Your task to perform on an android device: star an email in the gmail app Image 0: 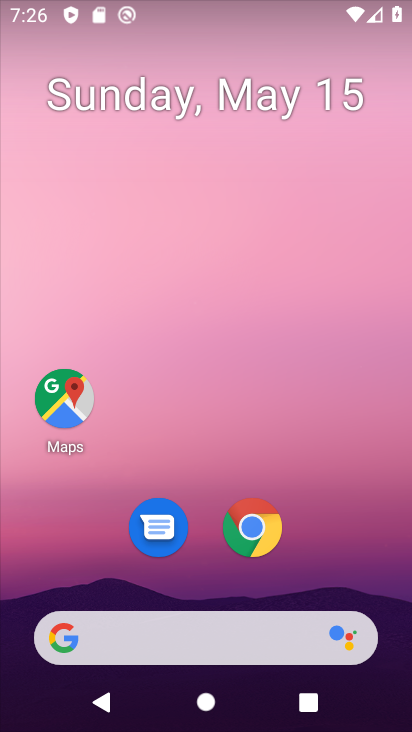
Step 0: drag from (139, 636) to (342, 47)
Your task to perform on an android device: star an email in the gmail app Image 1: 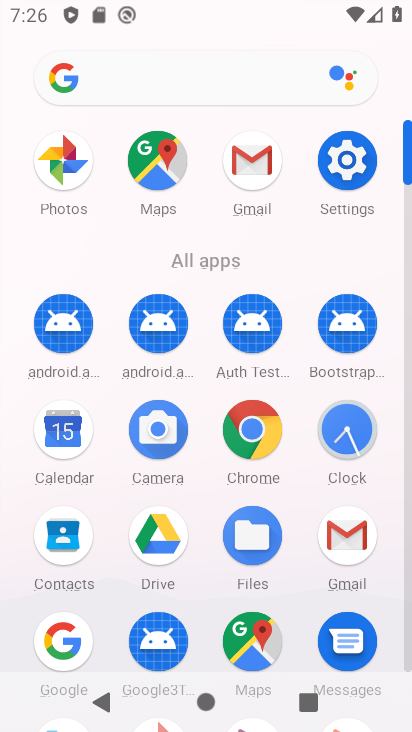
Step 1: click (255, 170)
Your task to perform on an android device: star an email in the gmail app Image 2: 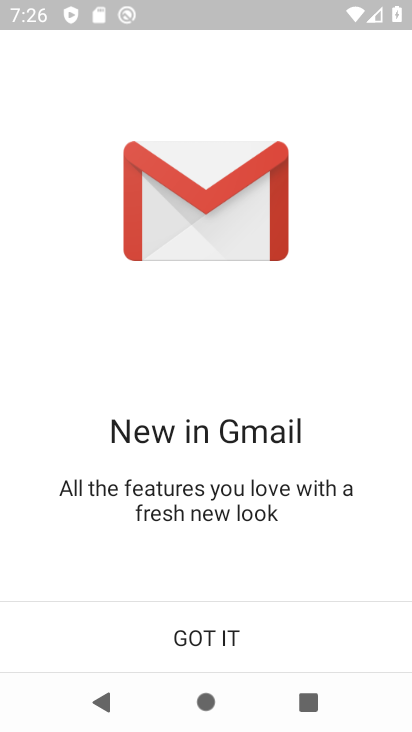
Step 2: click (194, 628)
Your task to perform on an android device: star an email in the gmail app Image 3: 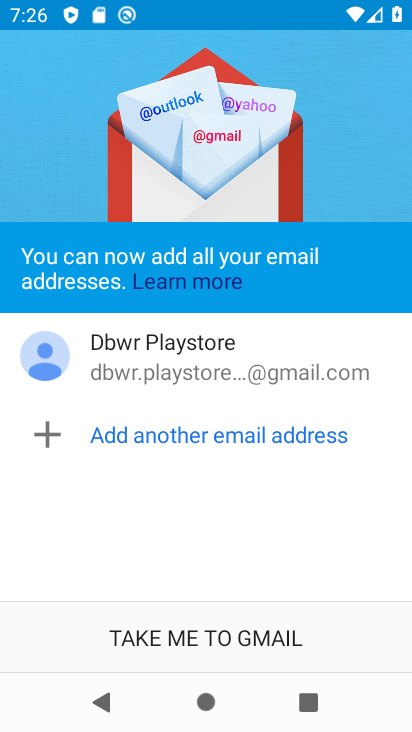
Step 3: click (194, 628)
Your task to perform on an android device: star an email in the gmail app Image 4: 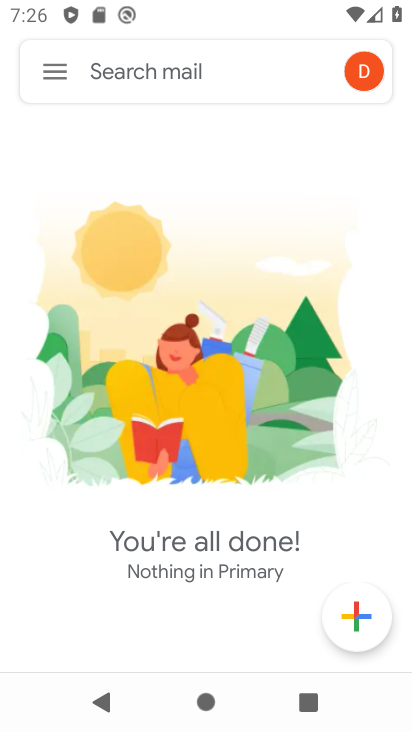
Step 4: click (56, 77)
Your task to perform on an android device: star an email in the gmail app Image 5: 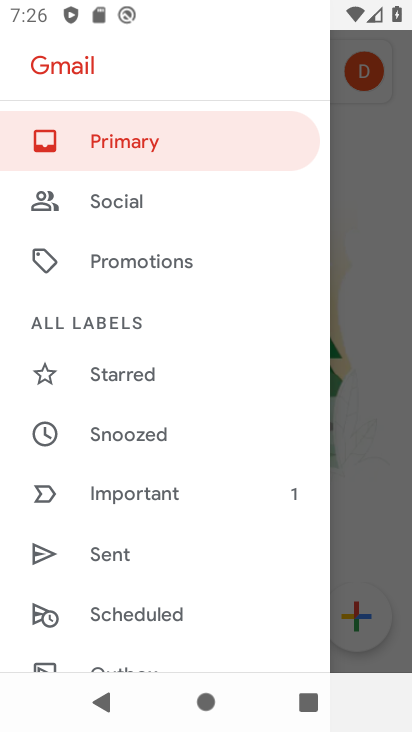
Step 5: drag from (172, 560) to (260, 300)
Your task to perform on an android device: star an email in the gmail app Image 6: 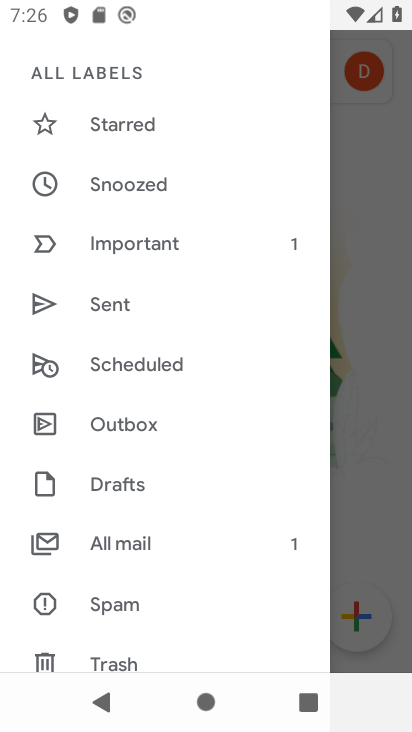
Step 6: click (137, 543)
Your task to perform on an android device: star an email in the gmail app Image 7: 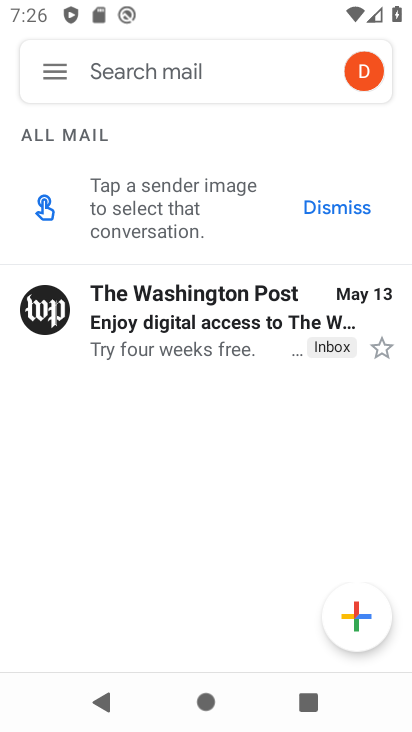
Step 7: click (57, 313)
Your task to perform on an android device: star an email in the gmail app Image 8: 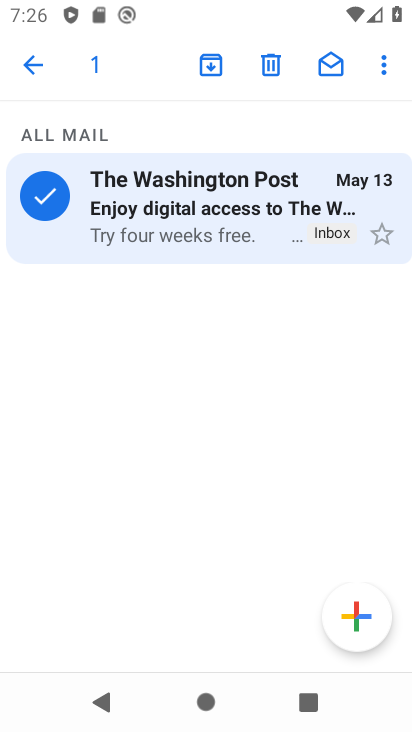
Step 8: click (381, 65)
Your task to perform on an android device: star an email in the gmail app Image 9: 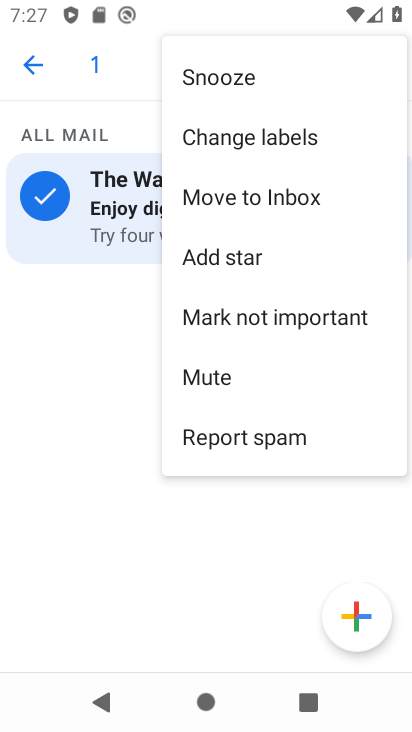
Step 9: click (246, 261)
Your task to perform on an android device: star an email in the gmail app Image 10: 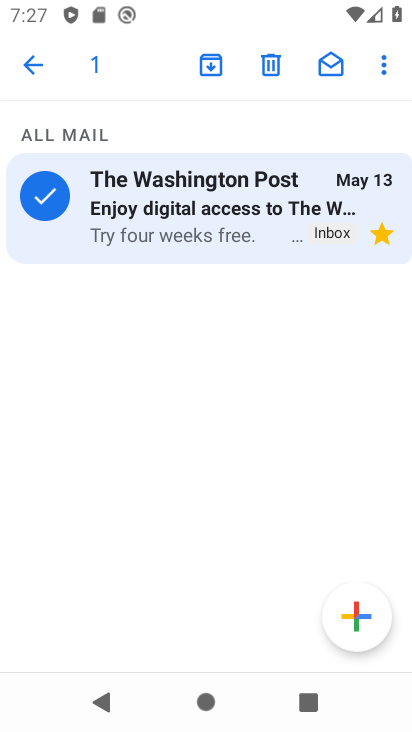
Step 10: click (54, 204)
Your task to perform on an android device: star an email in the gmail app Image 11: 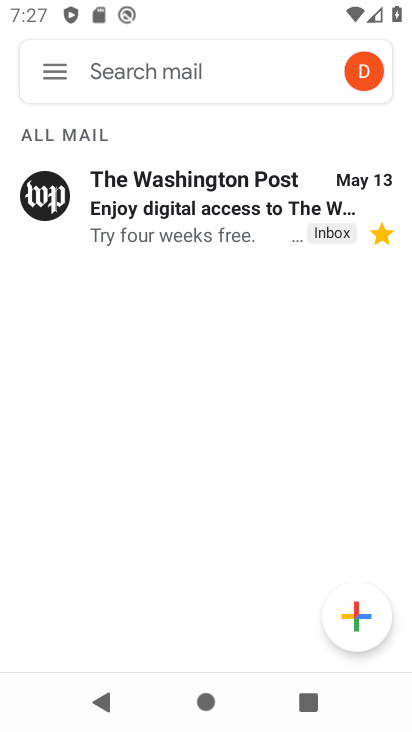
Step 11: task complete